Your task to perform on an android device: turn off data saver in the chrome app Image 0: 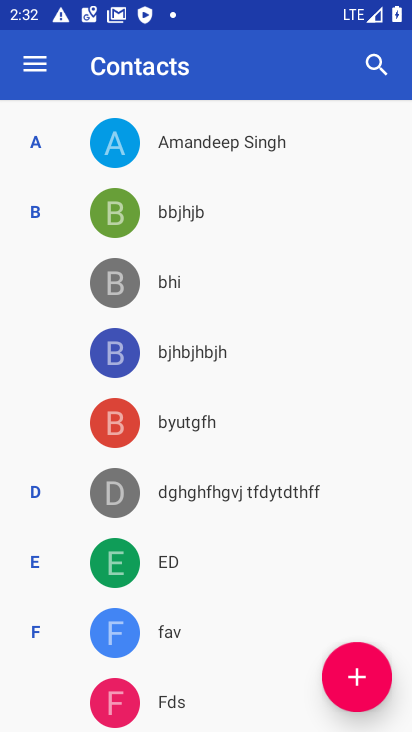
Step 0: press home button
Your task to perform on an android device: turn off data saver in the chrome app Image 1: 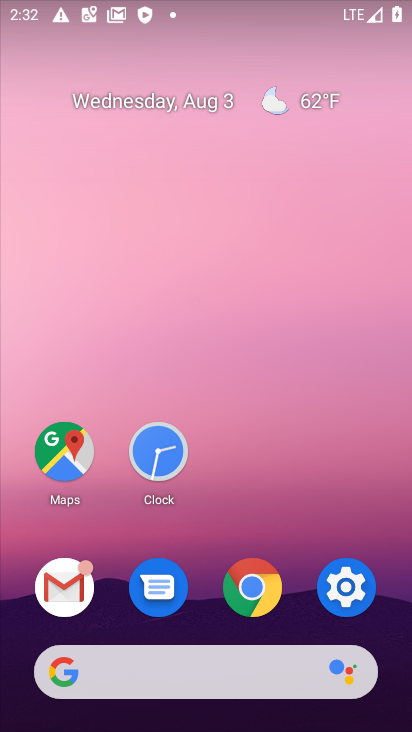
Step 1: click (249, 585)
Your task to perform on an android device: turn off data saver in the chrome app Image 2: 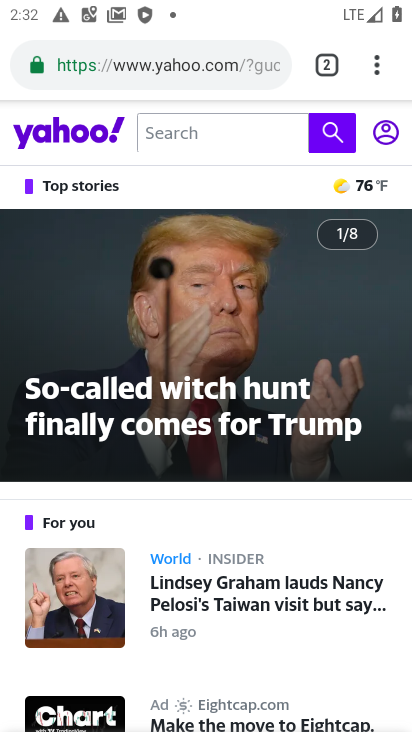
Step 2: click (380, 68)
Your task to perform on an android device: turn off data saver in the chrome app Image 3: 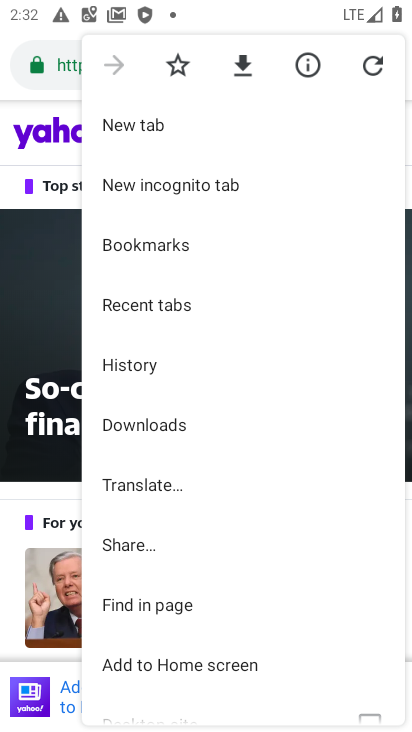
Step 3: drag from (252, 631) to (222, 263)
Your task to perform on an android device: turn off data saver in the chrome app Image 4: 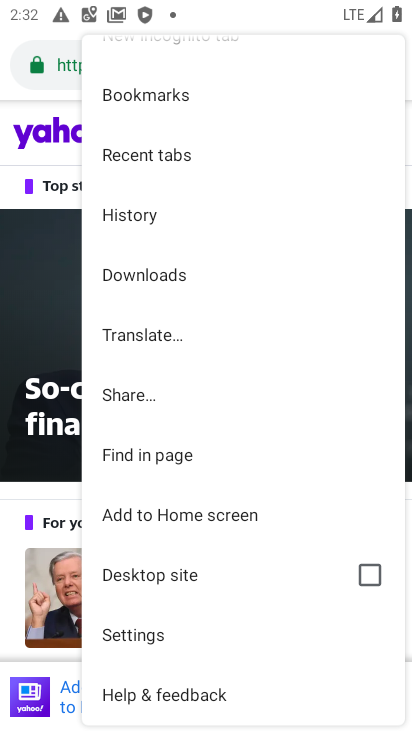
Step 4: click (130, 635)
Your task to perform on an android device: turn off data saver in the chrome app Image 5: 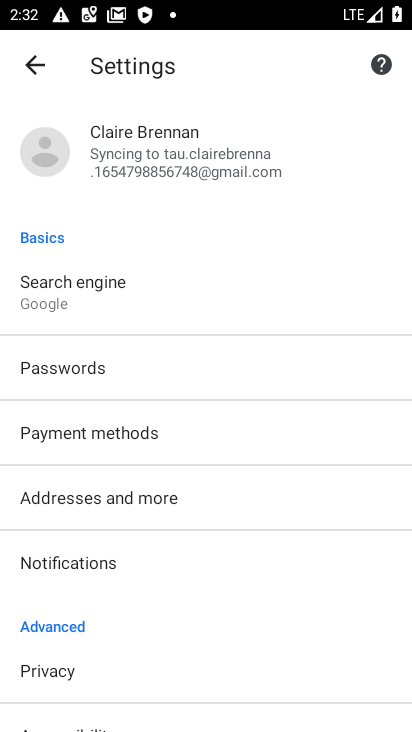
Step 5: drag from (213, 631) to (205, 228)
Your task to perform on an android device: turn off data saver in the chrome app Image 6: 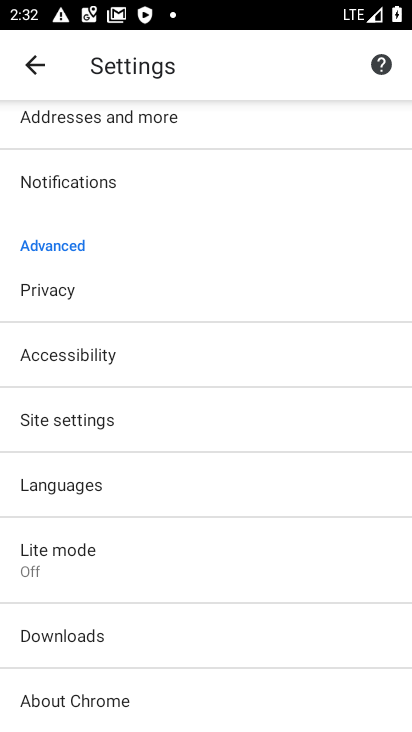
Step 6: click (67, 562)
Your task to perform on an android device: turn off data saver in the chrome app Image 7: 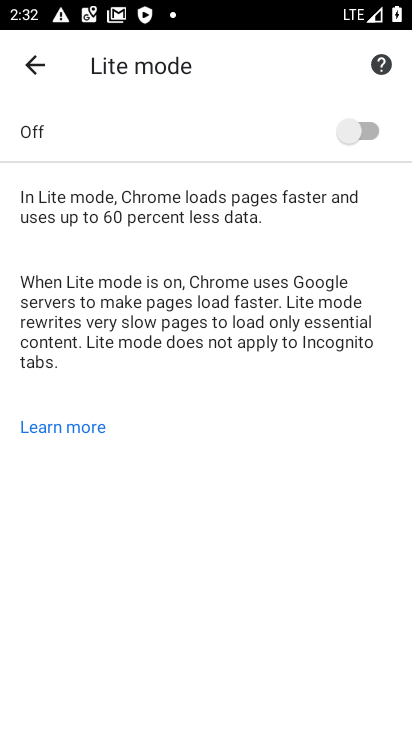
Step 7: task complete